Your task to perform on an android device: turn on the 12-hour format for clock Image 0: 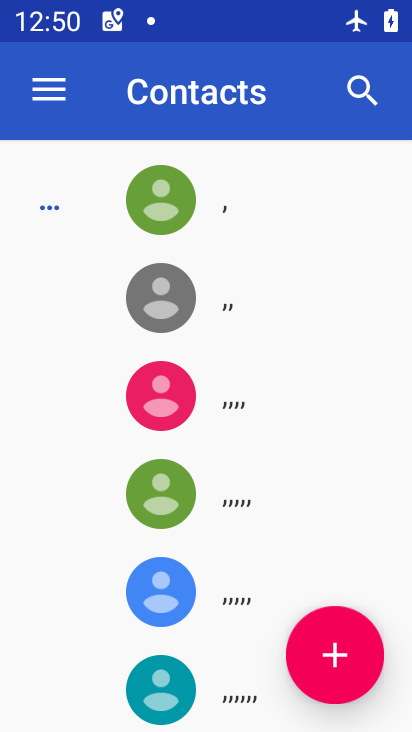
Step 0: press home button
Your task to perform on an android device: turn on the 12-hour format for clock Image 1: 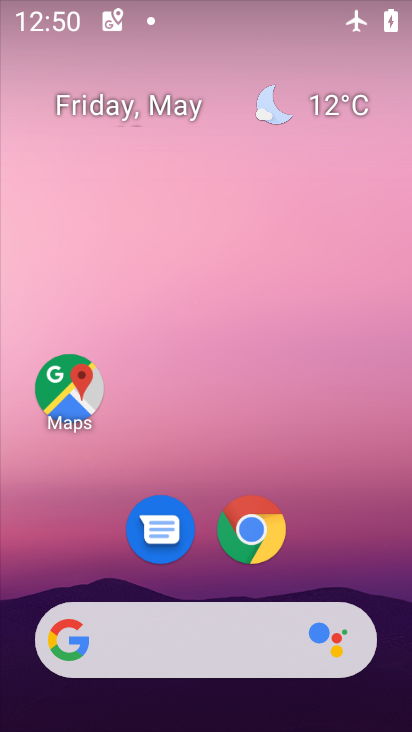
Step 1: drag from (316, 519) to (308, 230)
Your task to perform on an android device: turn on the 12-hour format for clock Image 2: 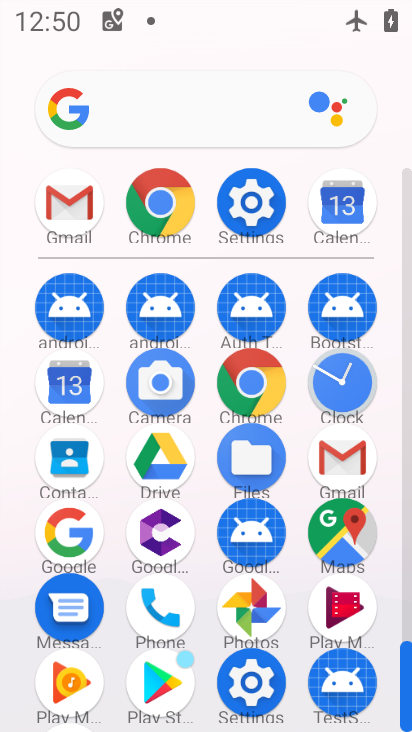
Step 2: click (343, 373)
Your task to perform on an android device: turn on the 12-hour format for clock Image 3: 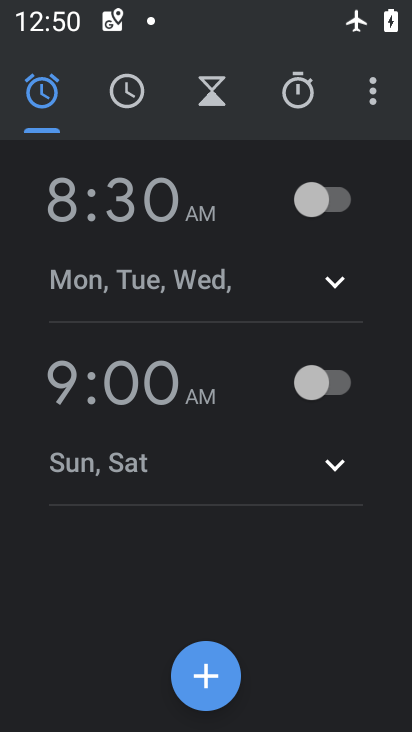
Step 3: click (351, 92)
Your task to perform on an android device: turn on the 12-hour format for clock Image 4: 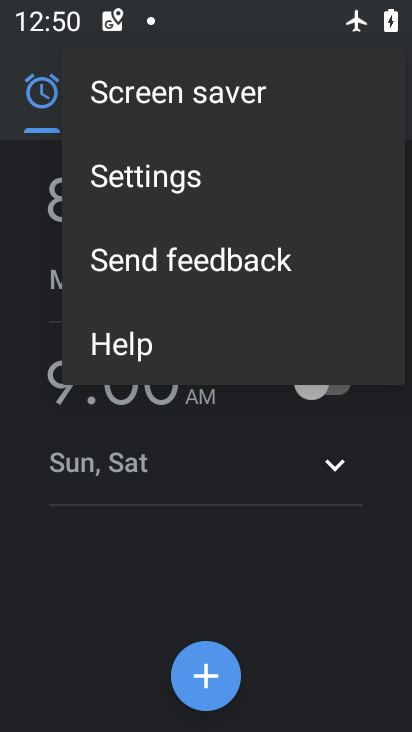
Step 4: click (155, 183)
Your task to perform on an android device: turn on the 12-hour format for clock Image 5: 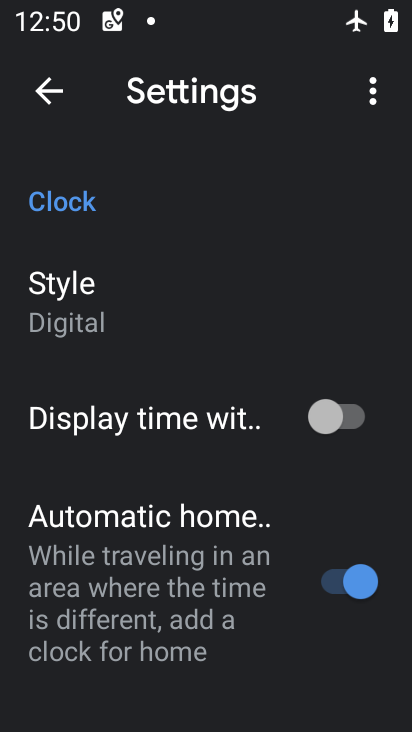
Step 5: drag from (153, 573) to (154, 224)
Your task to perform on an android device: turn on the 12-hour format for clock Image 6: 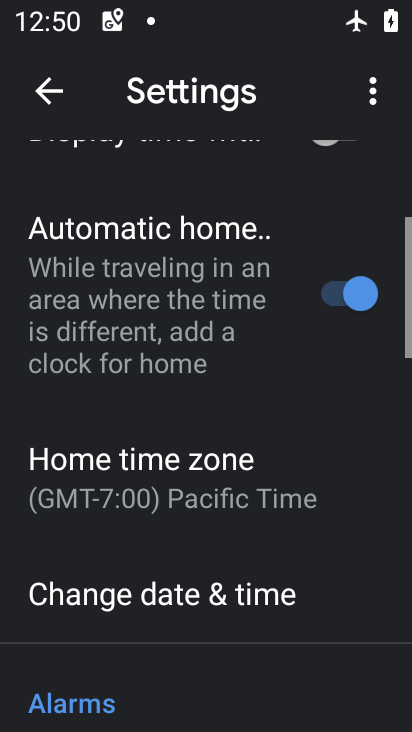
Step 6: click (170, 380)
Your task to perform on an android device: turn on the 12-hour format for clock Image 7: 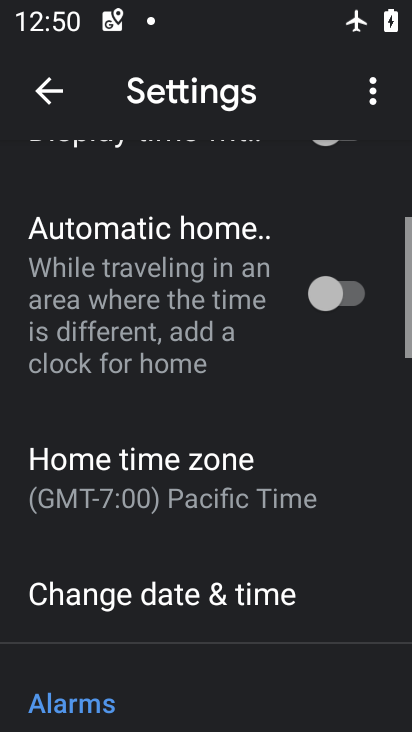
Step 7: click (189, 607)
Your task to perform on an android device: turn on the 12-hour format for clock Image 8: 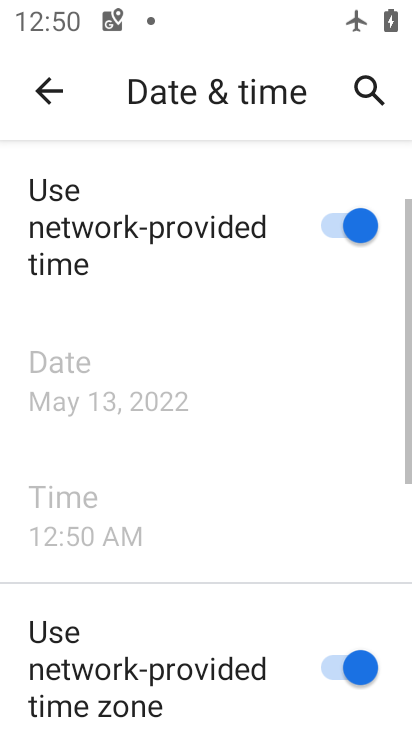
Step 8: drag from (280, 649) to (305, 231)
Your task to perform on an android device: turn on the 12-hour format for clock Image 9: 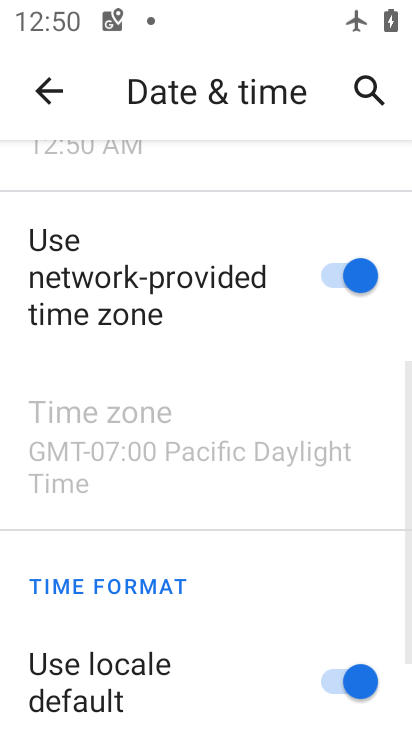
Step 9: drag from (315, 602) to (294, 214)
Your task to perform on an android device: turn on the 12-hour format for clock Image 10: 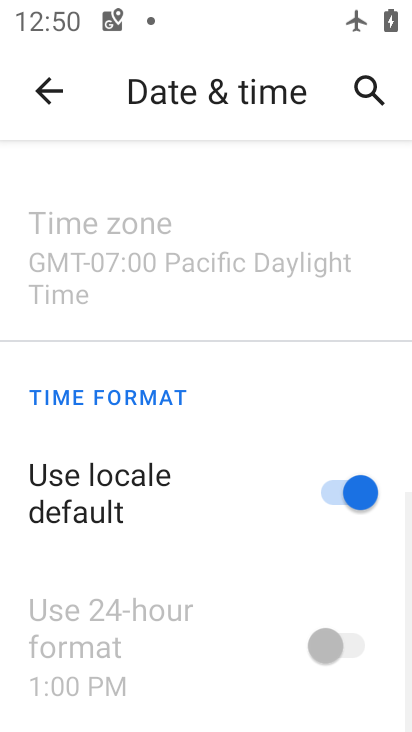
Step 10: click (318, 480)
Your task to perform on an android device: turn on the 12-hour format for clock Image 11: 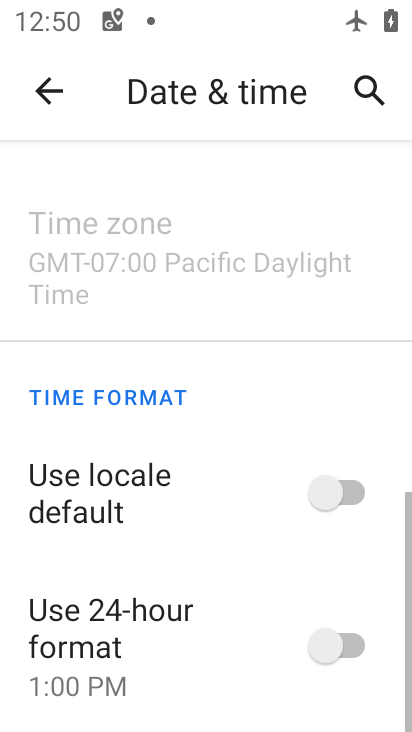
Step 11: click (355, 645)
Your task to perform on an android device: turn on the 12-hour format for clock Image 12: 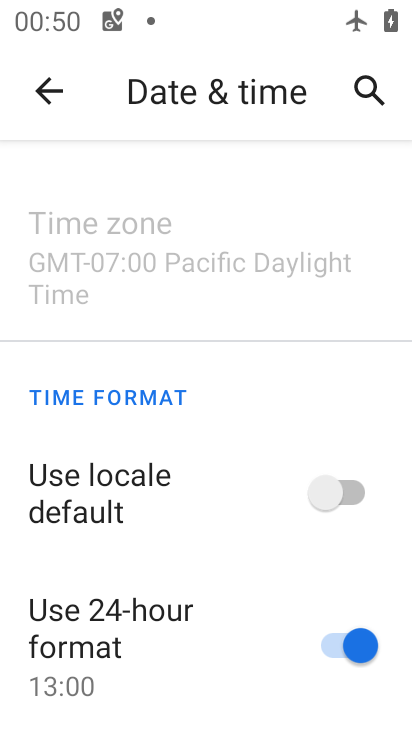
Step 12: task complete